Your task to perform on an android device: open app "HBO Max: Stream TV & Movies" (install if not already installed) Image 0: 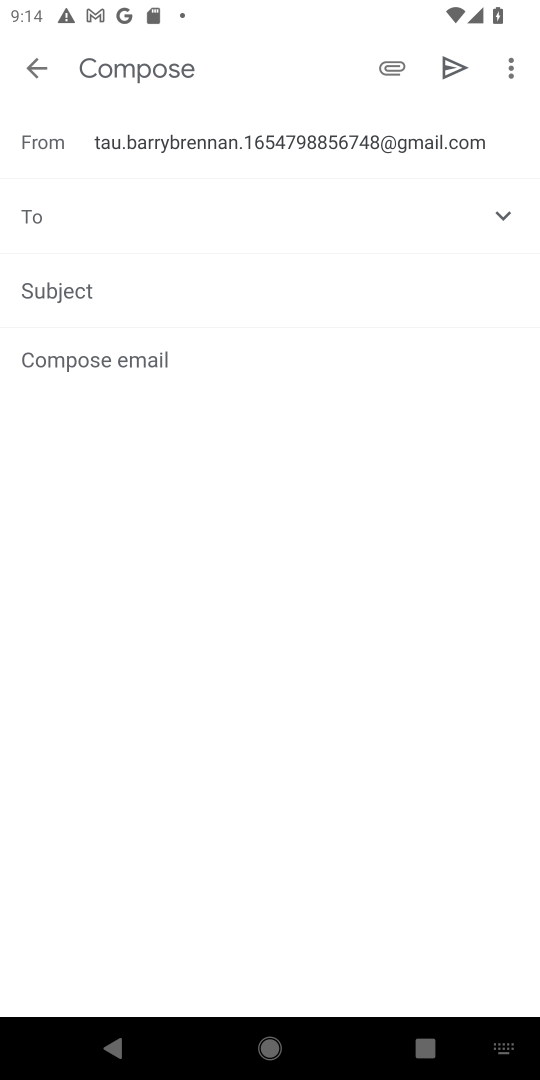
Step 0: press home button
Your task to perform on an android device: open app "HBO Max: Stream TV & Movies" (install if not already installed) Image 1: 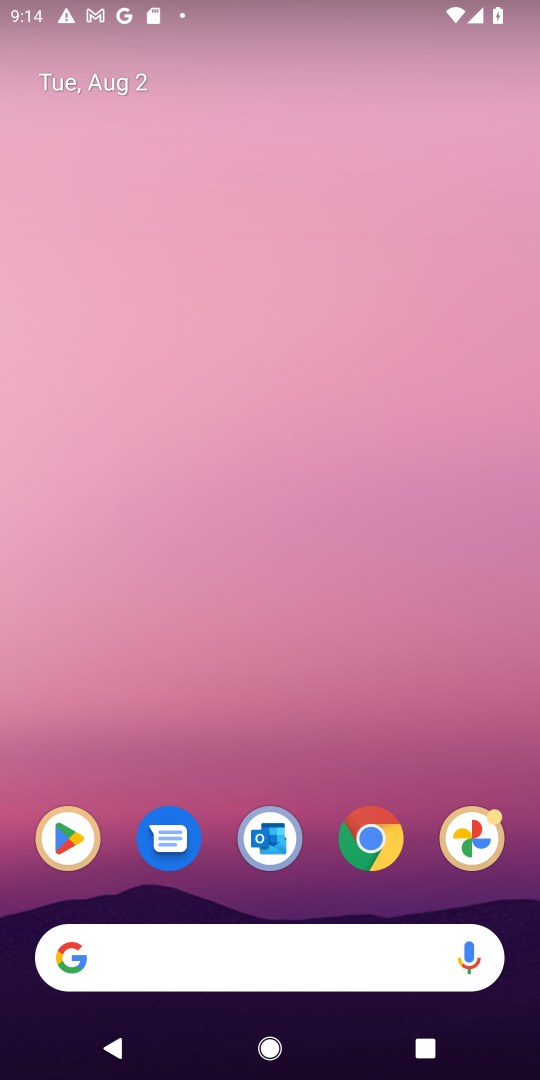
Step 1: drag from (322, 756) to (330, 38)
Your task to perform on an android device: open app "HBO Max: Stream TV & Movies" (install if not already installed) Image 2: 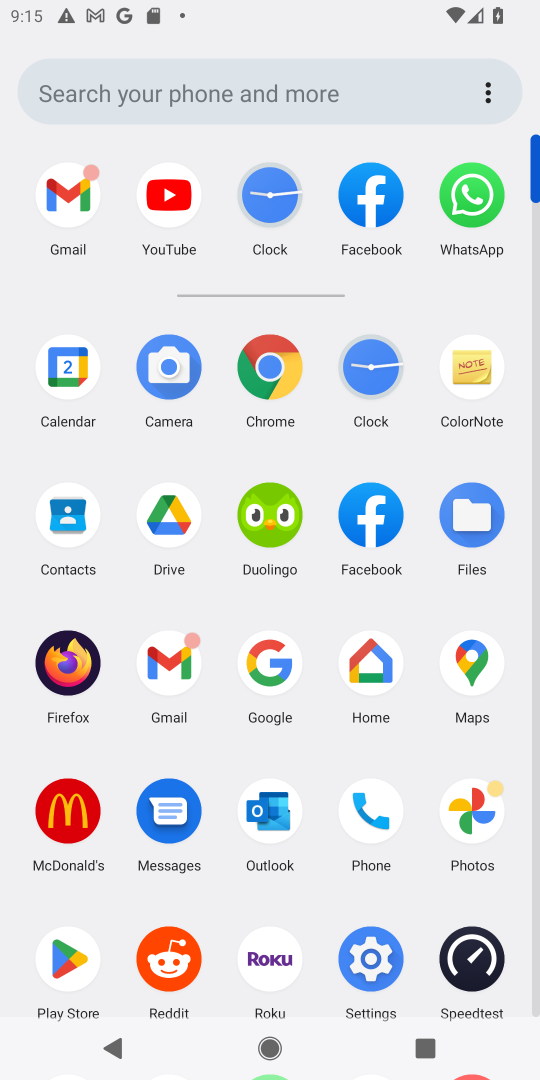
Step 2: click (65, 968)
Your task to perform on an android device: open app "HBO Max: Stream TV & Movies" (install if not already installed) Image 3: 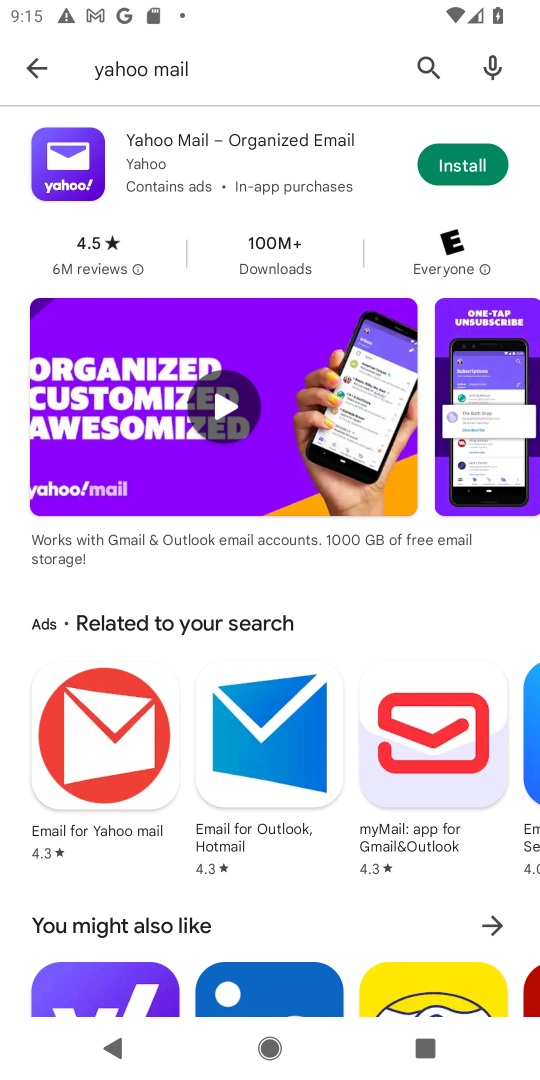
Step 3: click (428, 66)
Your task to perform on an android device: open app "HBO Max: Stream TV & Movies" (install if not already installed) Image 4: 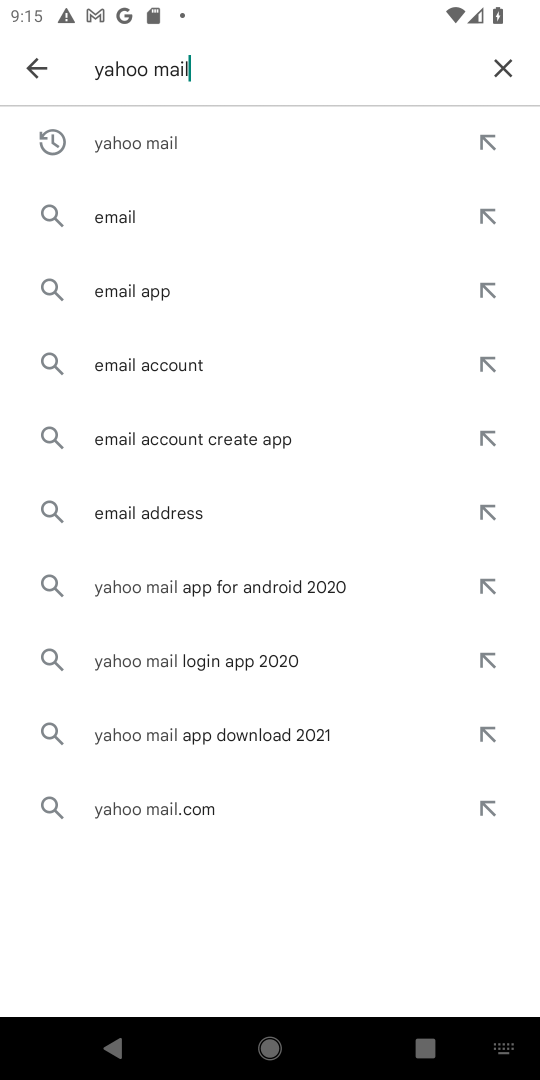
Step 4: click (338, 81)
Your task to perform on an android device: open app "HBO Max: Stream TV & Movies" (install if not already installed) Image 5: 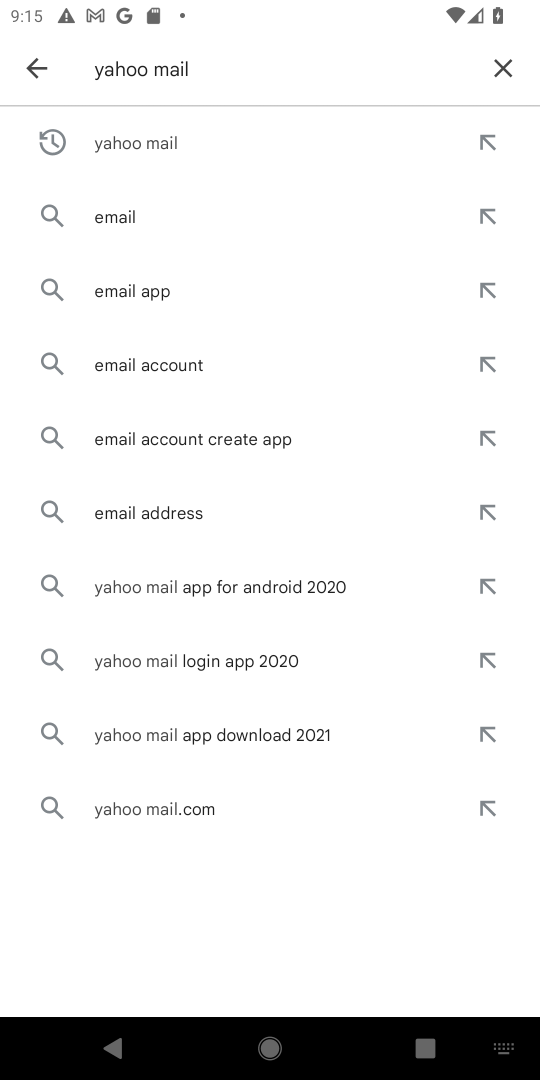
Step 5: click (494, 64)
Your task to perform on an android device: open app "HBO Max: Stream TV & Movies" (install if not already installed) Image 6: 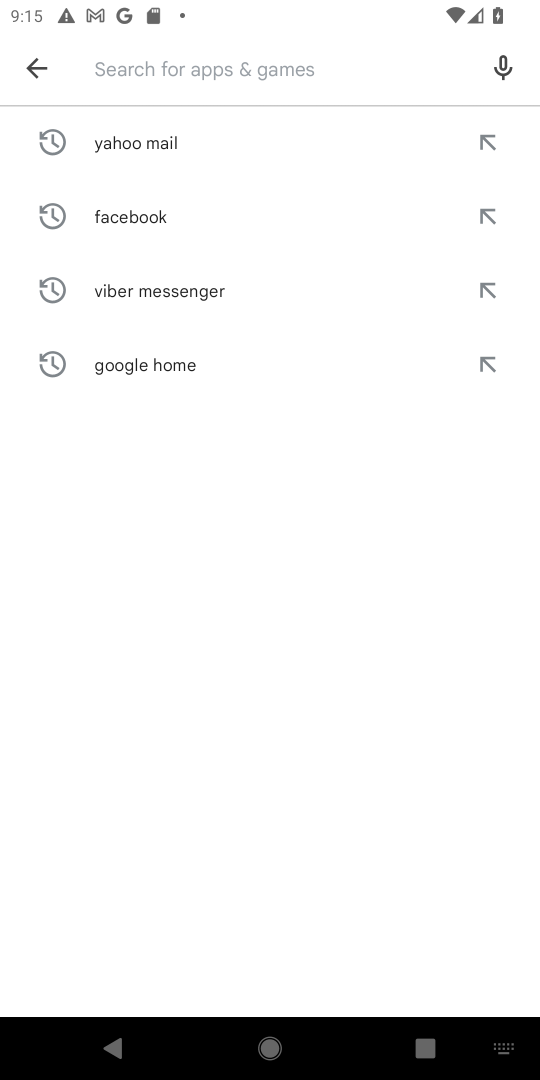
Step 6: type "HBO Max: Stream TV & Movies"
Your task to perform on an android device: open app "HBO Max: Stream TV & Movies" (install if not already installed) Image 7: 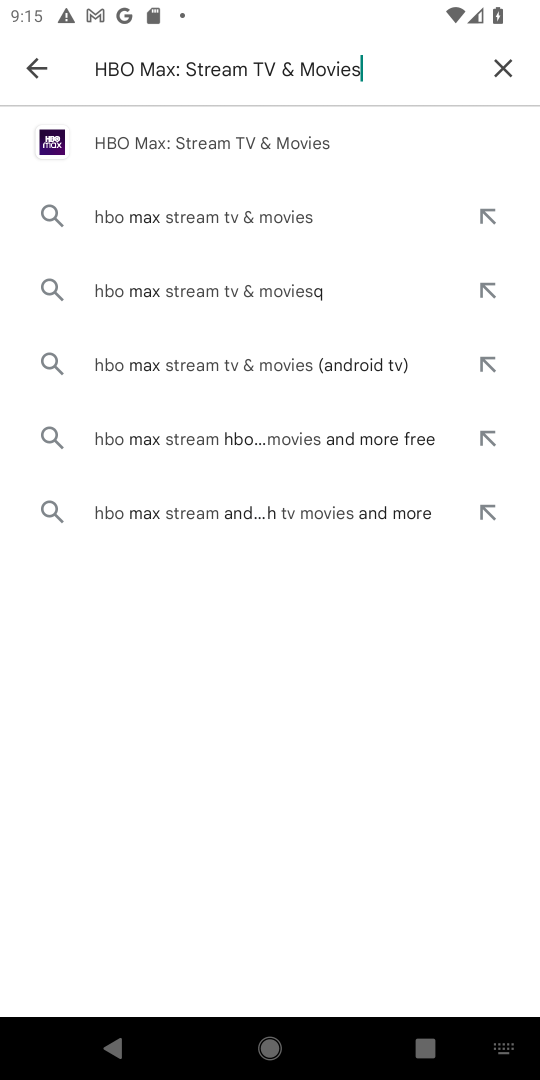
Step 7: click (335, 143)
Your task to perform on an android device: open app "HBO Max: Stream TV & Movies" (install if not already installed) Image 8: 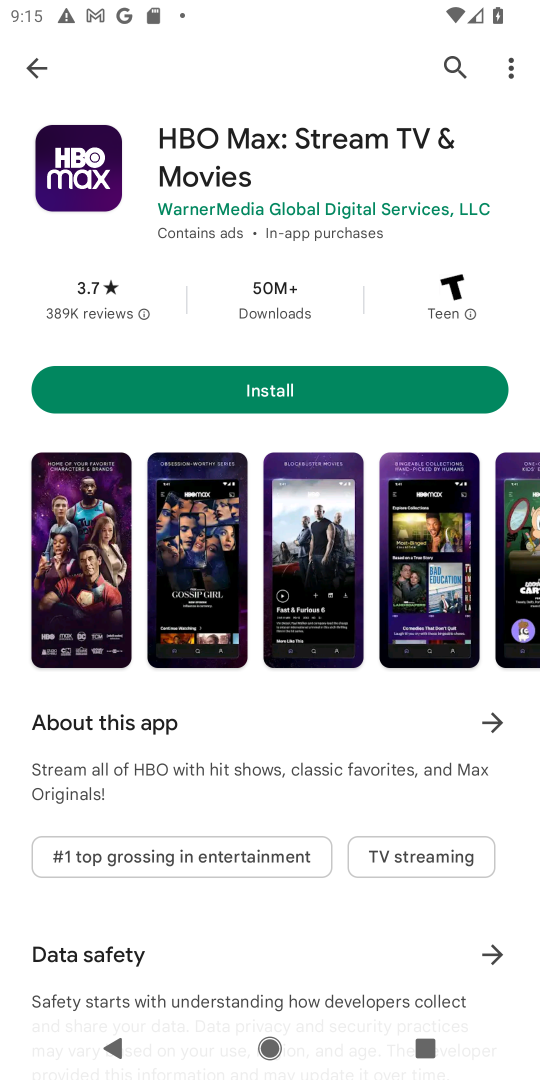
Step 8: click (338, 396)
Your task to perform on an android device: open app "HBO Max: Stream TV & Movies" (install if not already installed) Image 9: 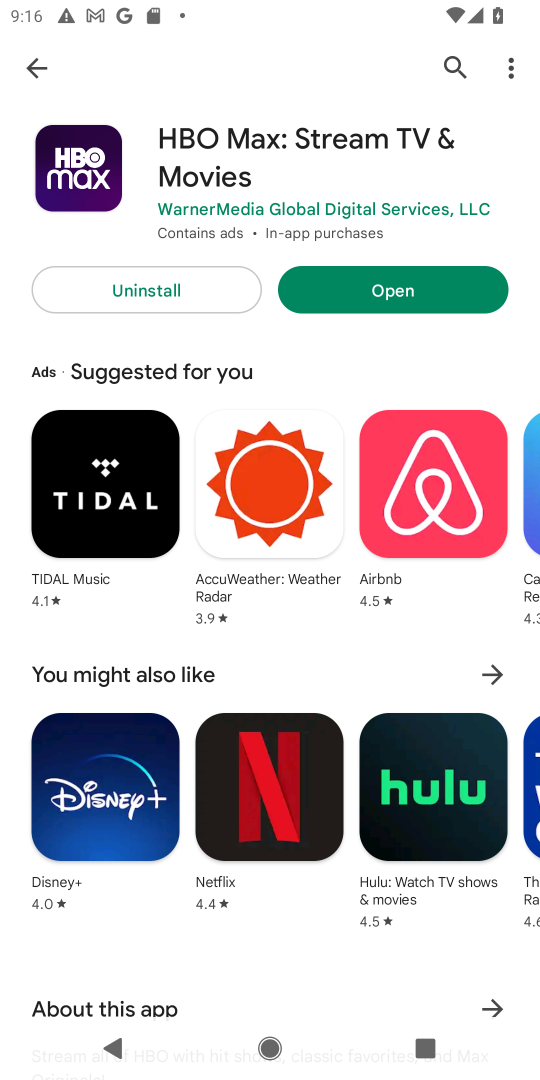
Step 9: click (427, 285)
Your task to perform on an android device: open app "HBO Max: Stream TV & Movies" (install if not already installed) Image 10: 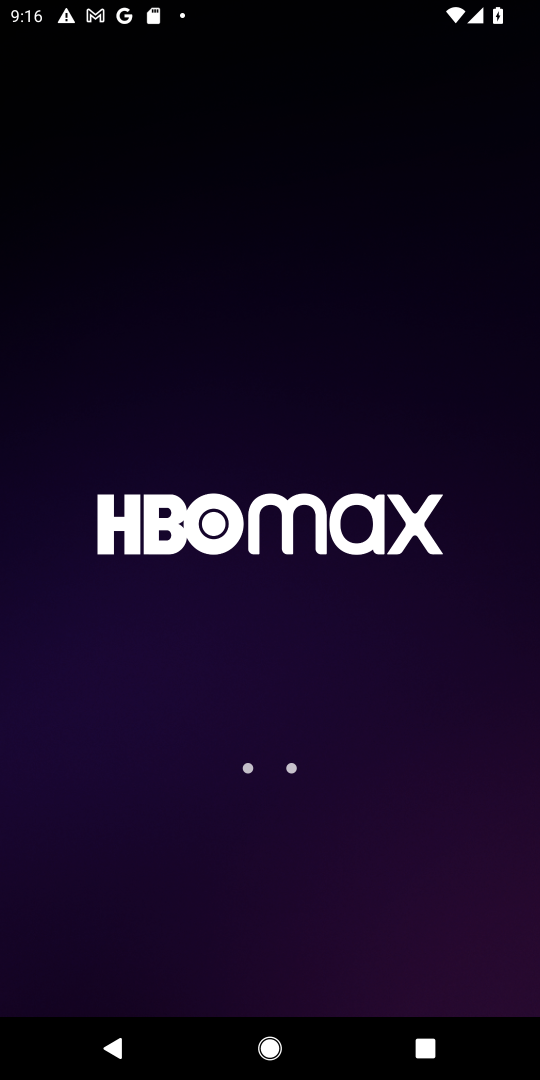
Step 10: task complete